Your task to perform on an android device: What's on my calendar tomorrow? Image 0: 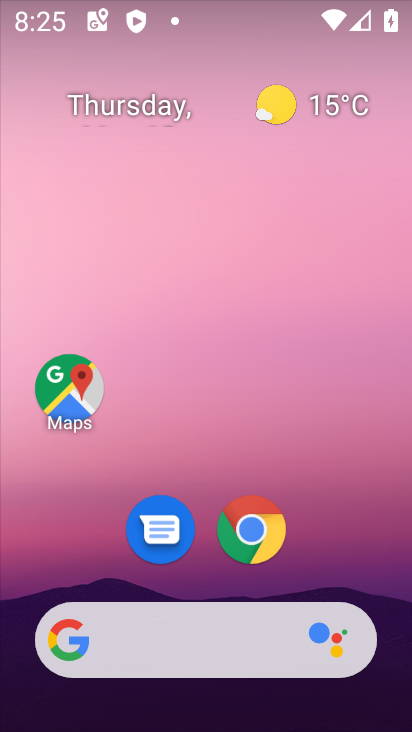
Step 0: drag from (146, 722) to (100, 14)
Your task to perform on an android device: What's on my calendar tomorrow? Image 1: 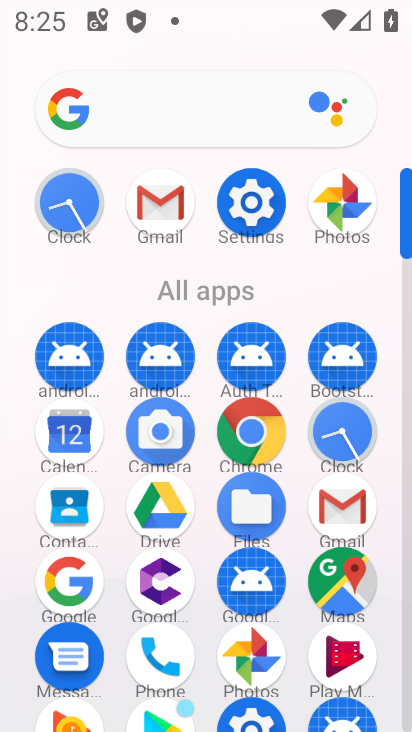
Step 1: click (39, 440)
Your task to perform on an android device: What's on my calendar tomorrow? Image 2: 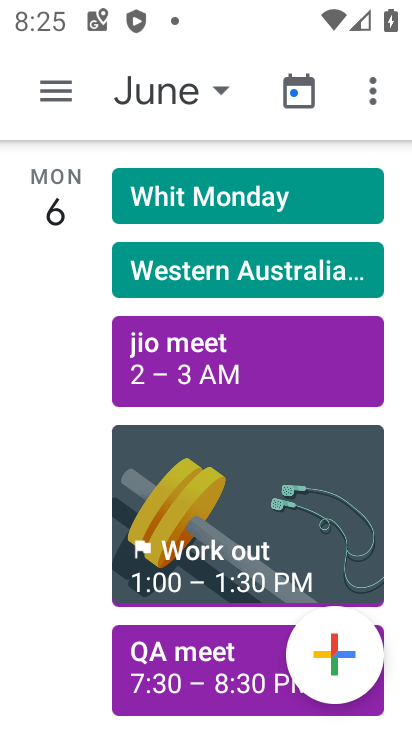
Step 2: click (158, 78)
Your task to perform on an android device: What's on my calendar tomorrow? Image 3: 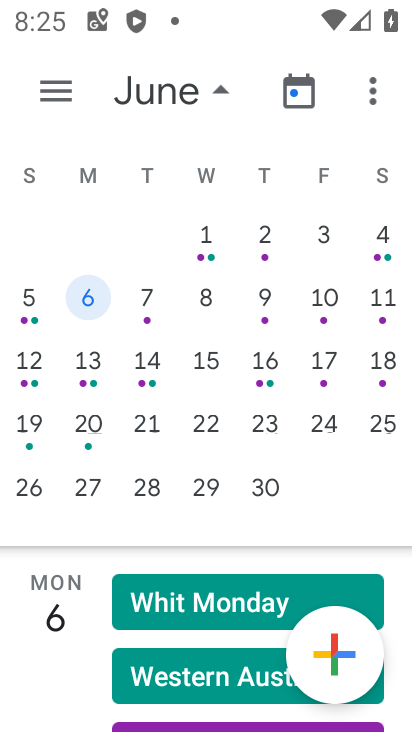
Step 3: drag from (5, 330) to (302, 384)
Your task to perform on an android device: What's on my calendar tomorrow? Image 4: 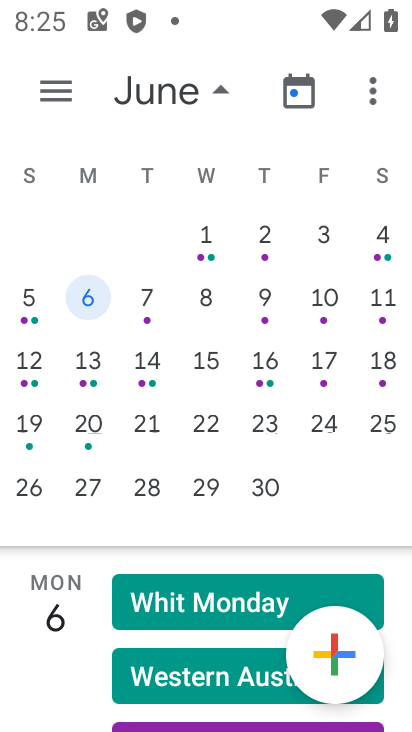
Step 4: drag from (138, 363) to (387, 356)
Your task to perform on an android device: What's on my calendar tomorrow? Image 5: 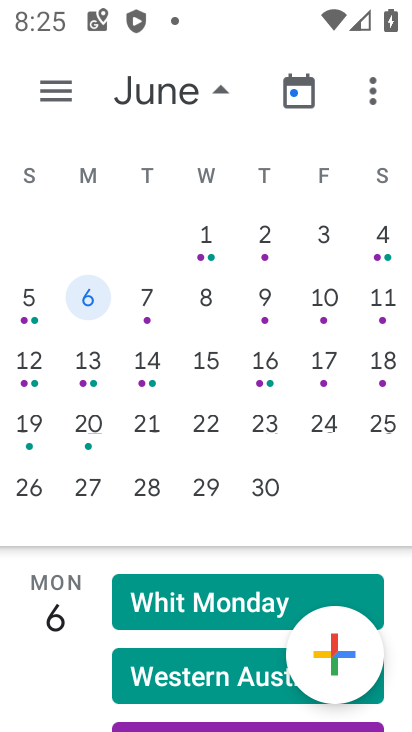
Step 5: drag from (78, 311) to (385, 403)
Your task to perform on an android device: What's on my calendar tomorrow? Image 6: 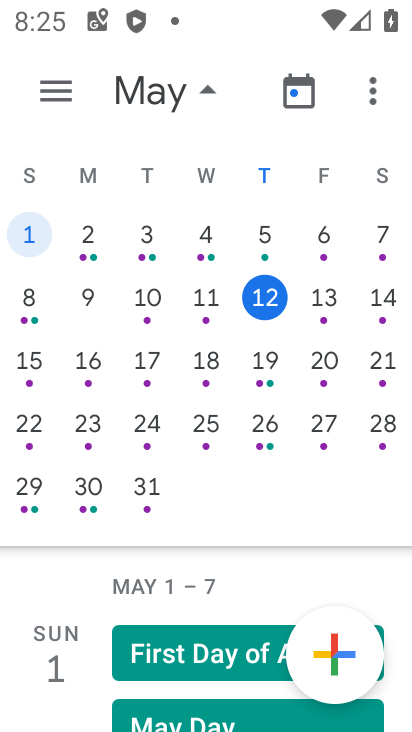
Step 6: click (330, 291)
Your task to perform on an android device: What's on my calendar tomorrow? Image 7: 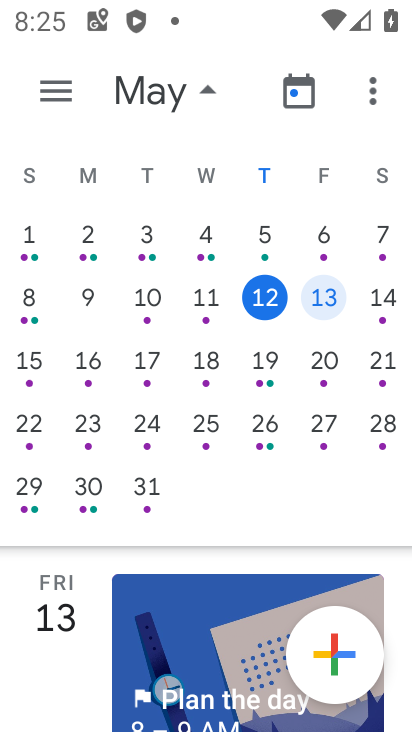
Step 7: task complete